Your task to perform on an android device: Open battery settings Image 0: 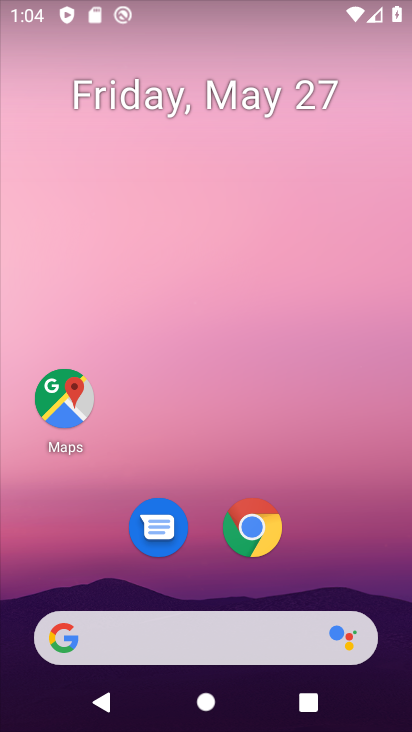
Step 0: drag from (365, 530) to (328, 68)
Your task to perform on an android device: Open battery settings Image 1: 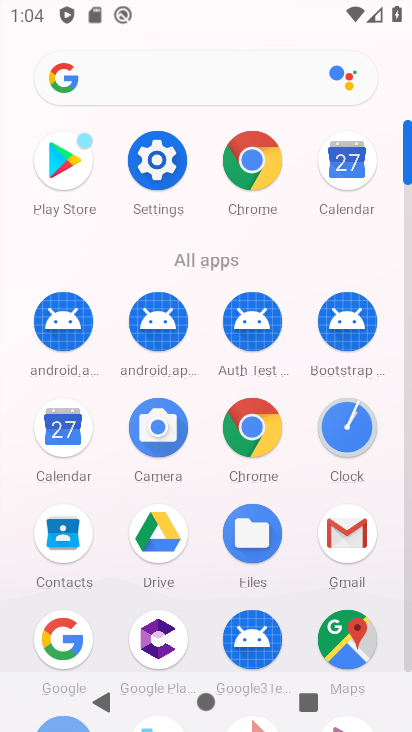
Step 1: click (152, 180)
Your task to perform on an android device: Open battery settings Image 2: 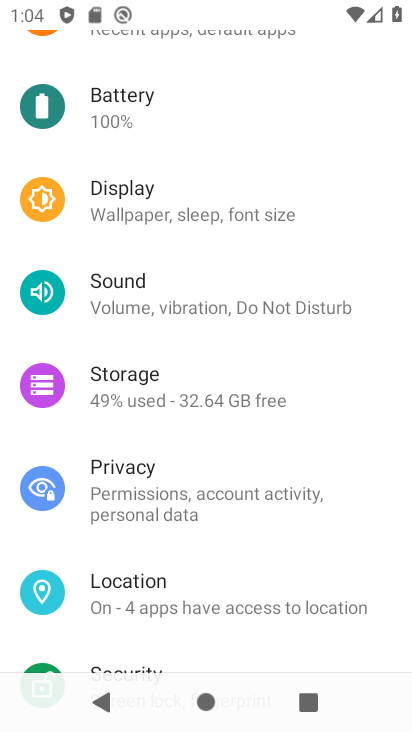
Step 2: click (151, 115)
Your task to perform on an android device: Open battery settings Image 3: 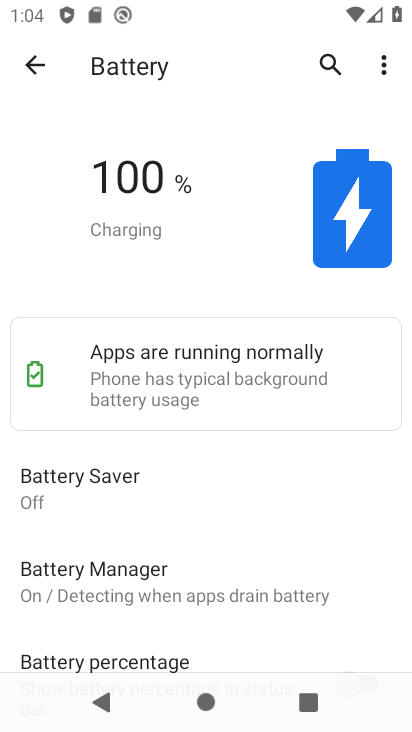
Step 3: task complete